Your task to perform on an android device: turn smart compose on in the gmail app Image 0: 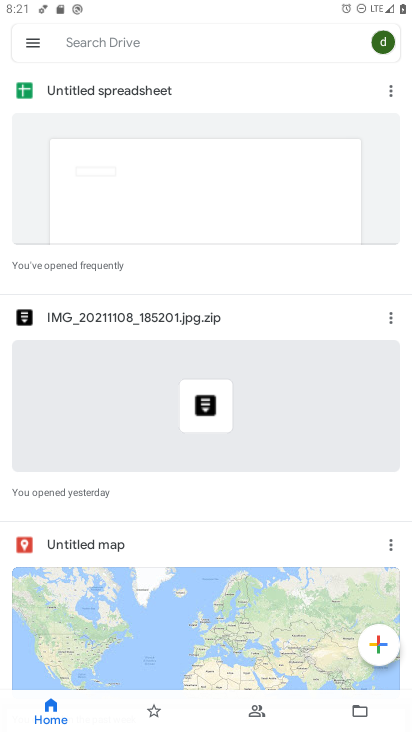
Step 0: press home button
Your task to perform on an android device: turn smart compose on in the gmail app Image 1: 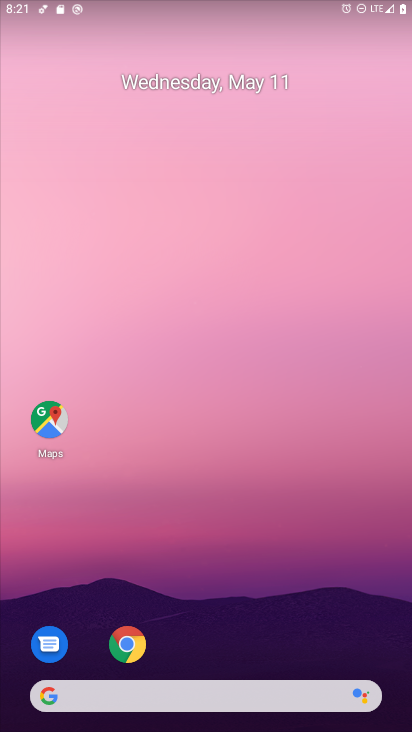
Step 1: drag from (220, 584) to (123, 127)
Your task to perform on an android device: turn smart compose on in the gmail app Image 2: 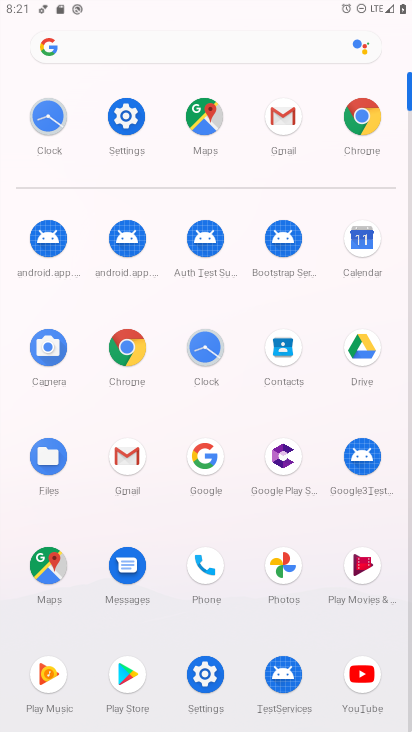
Step 2: click (127, 463)
Your task to perform on an android device: turn smart compose on in the gmail app Image 3: 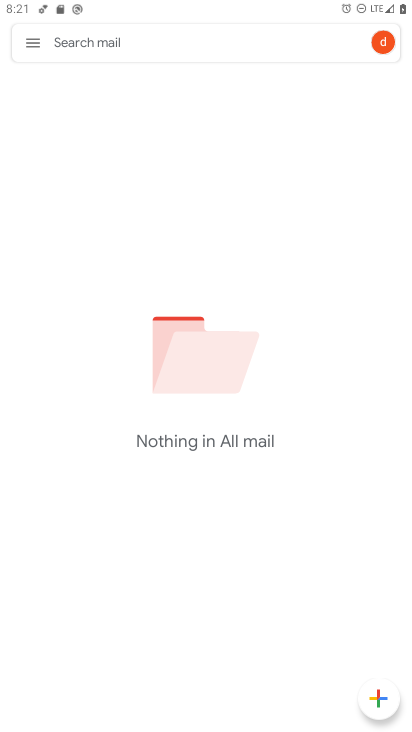
Step 3: click (30, 37)
Your task to perform on an android device: turn smart compose on in the gmail app Image 4: 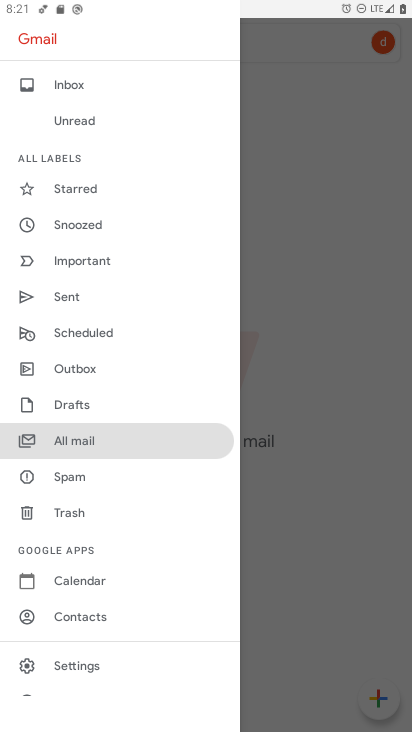
Step 4: click (69, 670)
Your task to perform on an android device: turn smart compose on in the gmail app Image 5: 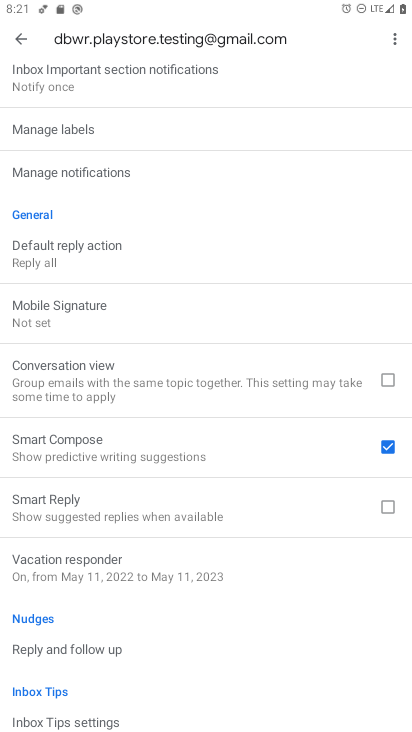
Step 5: task complete